Your task to perform on an android device: turn off airplane mode Image 0: 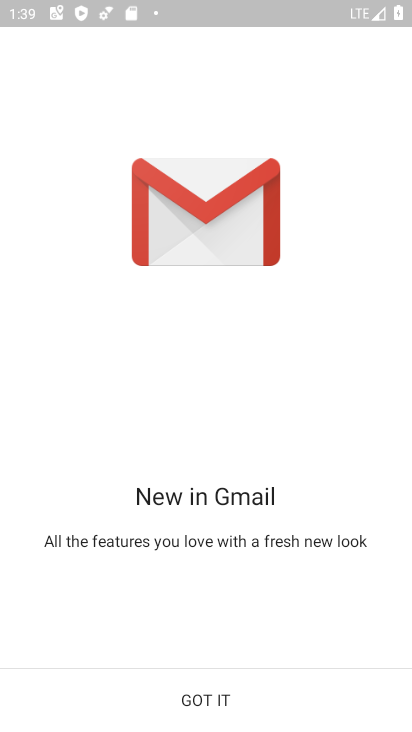
Step 0: press home button
Your task to perform on an android device: turn off airplane mode Image 1: 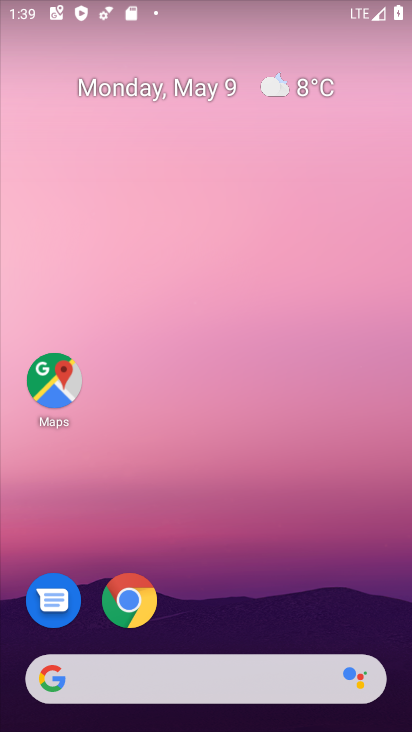
Step 1: task complete